Your task to perform on an android device: Play the last video I watched on Youtube Image 0: 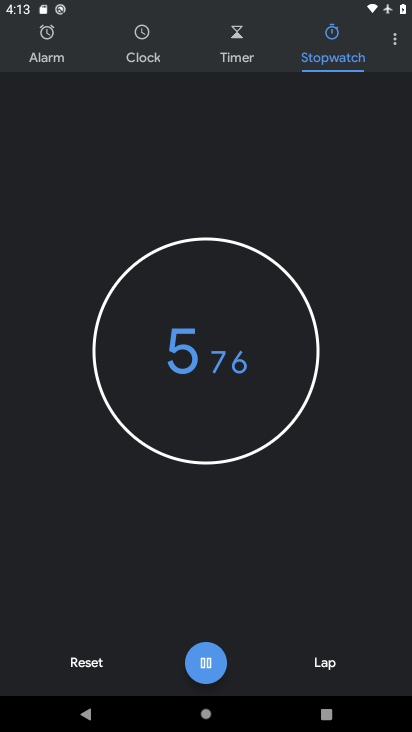
Step 0: press home button
Your task to perform on an android device: Play the last video I watched on Youtube Image 1: 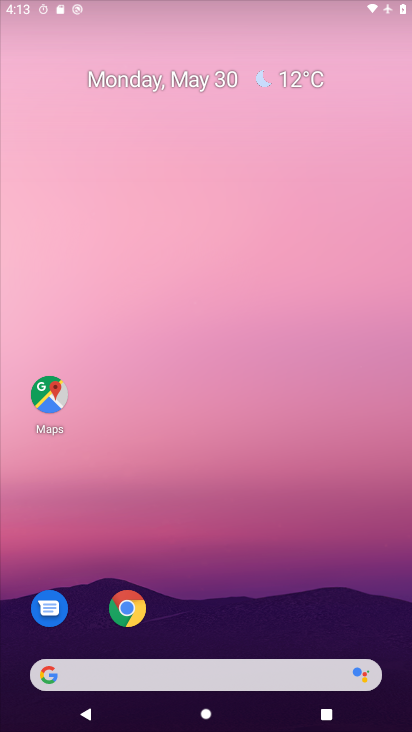
Step 1: drag from (358, 572) to (182, 39)
Your task to perform on an android device: Play the last video I watched on Youtube Image 2: 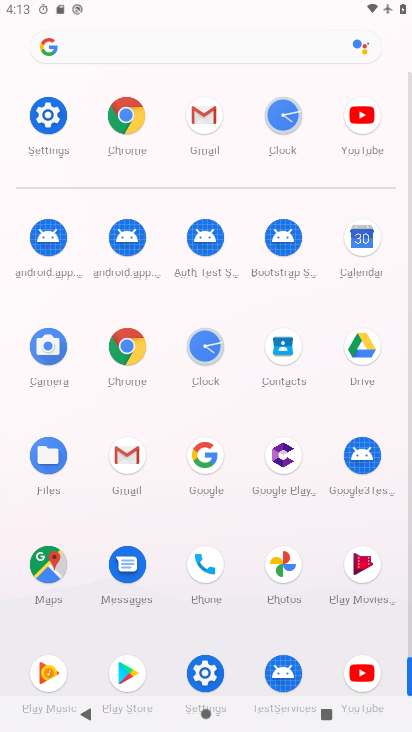
Step 2: click (359, 669)
Your task to perform on an android device: Play the last video I watched on Youtube Image 3: 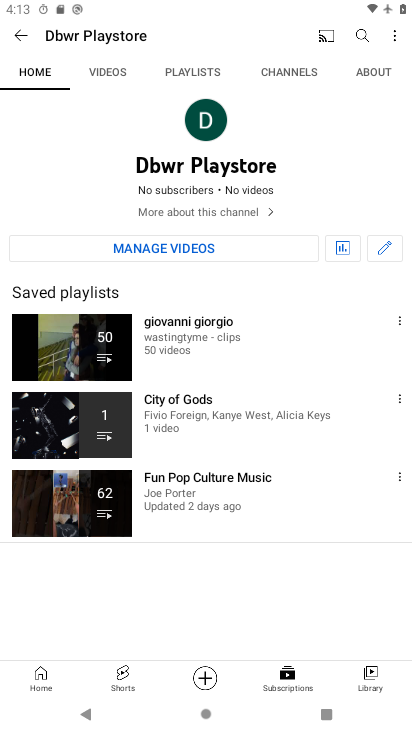
Step 3: click (366, 670)
Your task to perform on an android device: Play the last video I watched on Youtube Image 4: 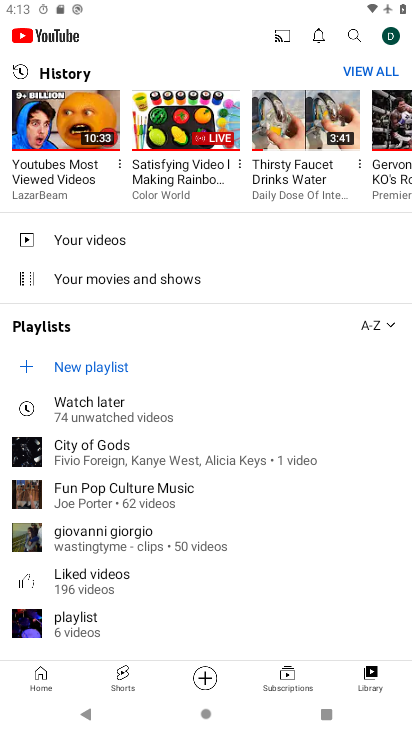
Step 4: click (75, 125)
Your task to perform on an android device: Play the last video I watched on Youtube Image 5: 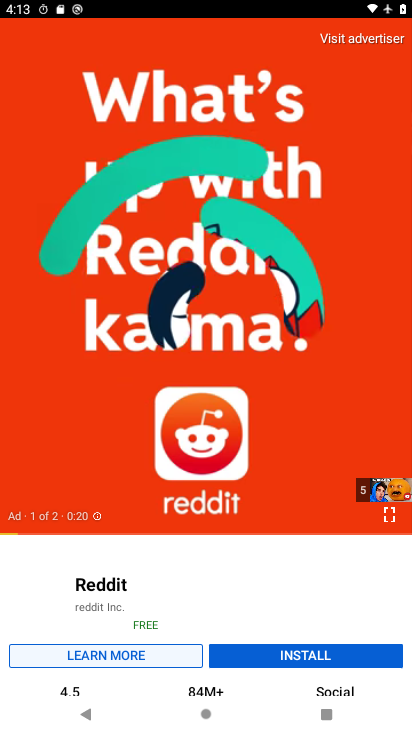
Step 5: click (198, 134)
Your task to perform on an android device: Play the last video I watched on Youtube Image 6: 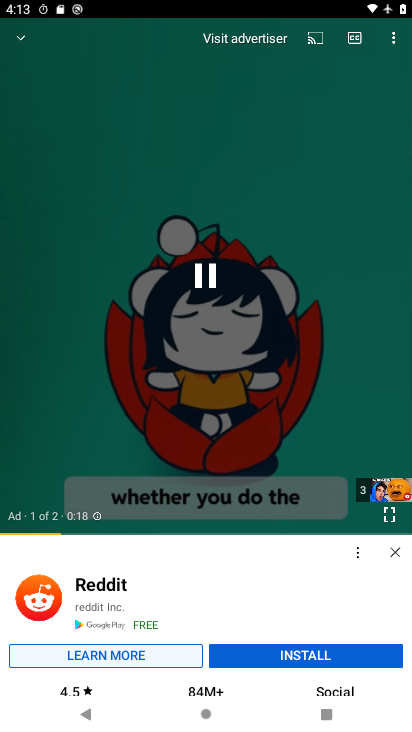
Step 6: click (214, 292)
Your task to perform on an android device: Play the last video I watched on Youtube Image 7: 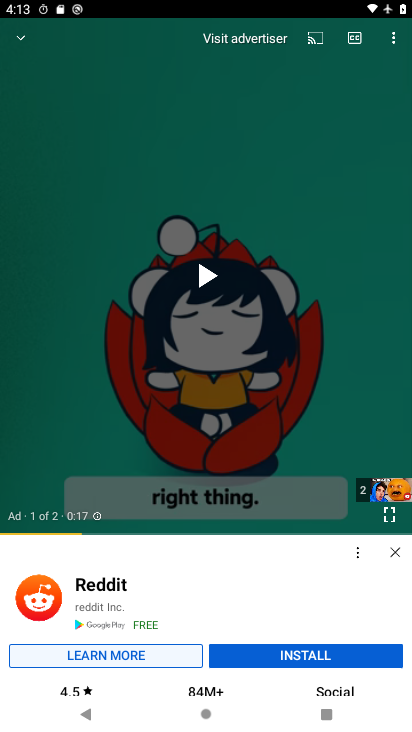
Step 7: task complete